Your task to perform on an android device: open a bookmark in the chrome app Image 0: 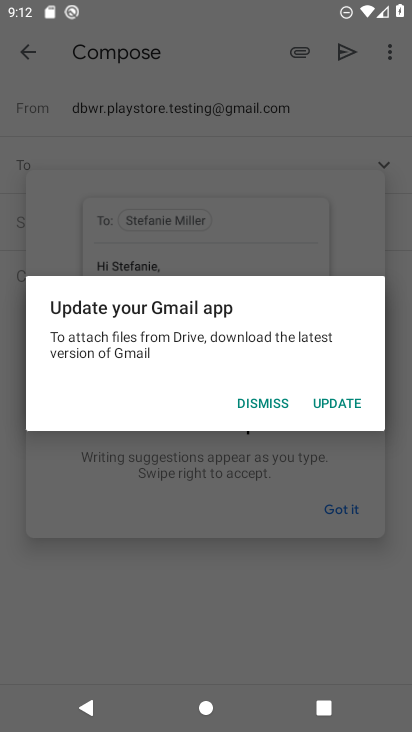
Step 0: press home button
Your task to perform on an android device: open a bookmark in the chrome app Image 1: 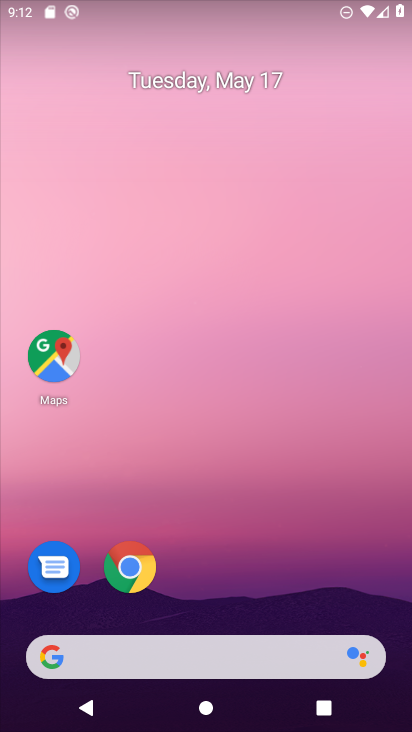
Step 1: click (134, 580)
Your task to perform on an android device: open a bookmark in the chrome app Image 2: 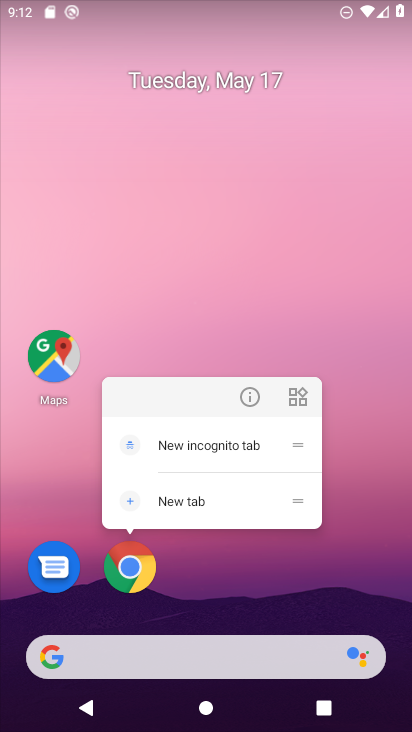
Step 2: click (136, 574)
Your task to perform on an android device: open a bookmark in the chrome app Image 3: 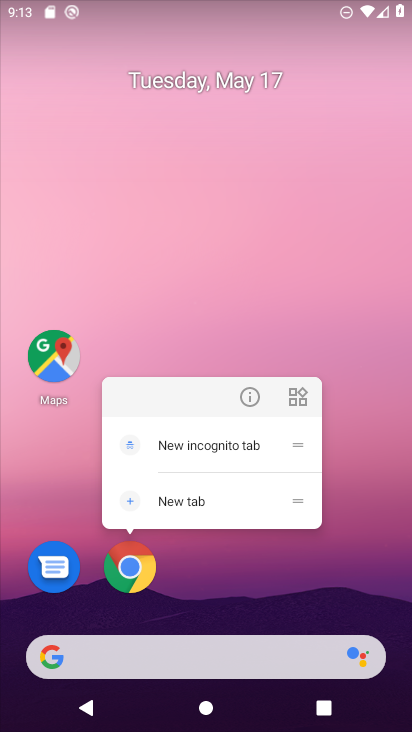
Step 3: click (136, 567)
Your task to perform on an android device: open a bookmark in the chrome app Image 4: 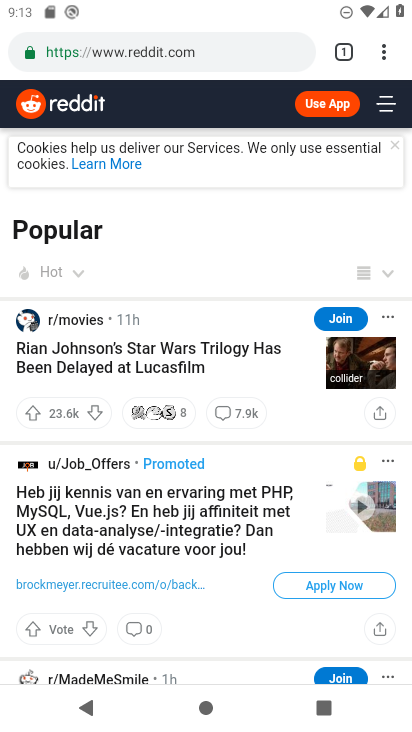
Step 4: task complete